Your task to perform on an android device: Add usb-a to the cart on target, then select checkout. Image 0: 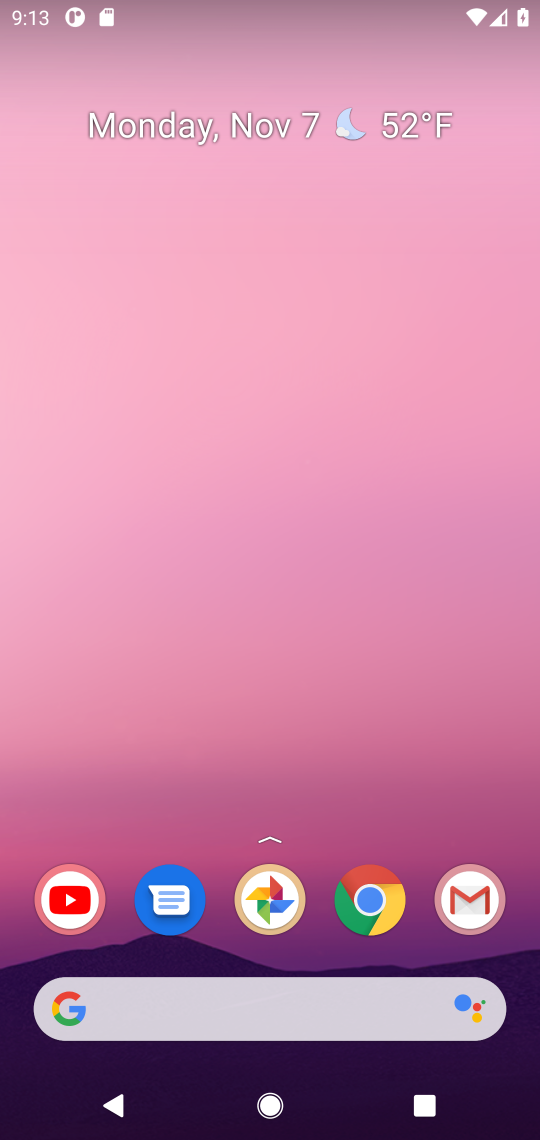
Step 0: click (276, 1042)
Your task to perform on an android device: Add usb-a to the cart on target, then select checkout. Image 1: 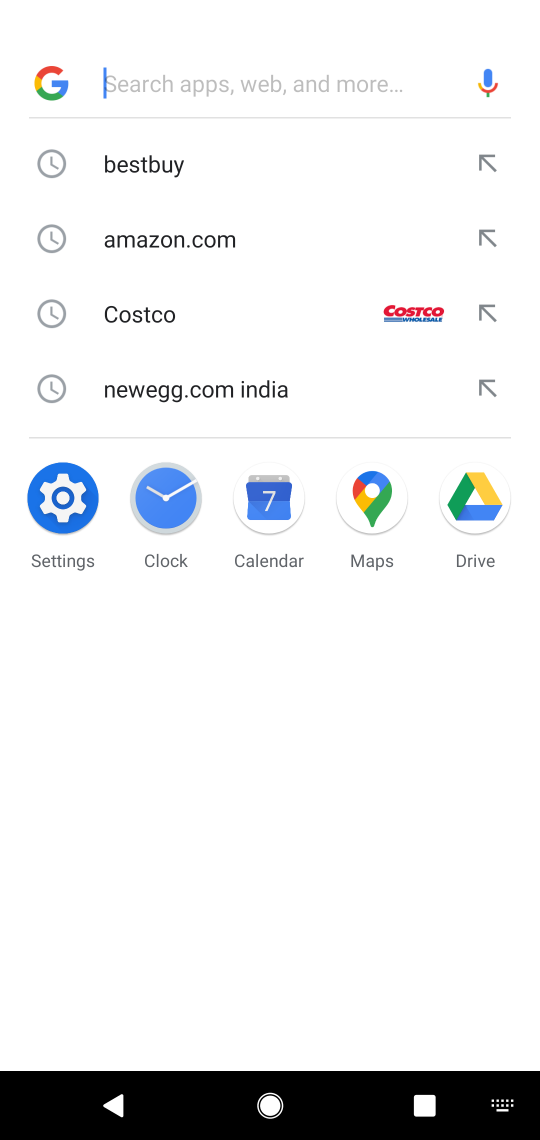
Step 1: task complete